Your task to perform on an android device: Search for seafood restaurants on Google Maps Image 0: 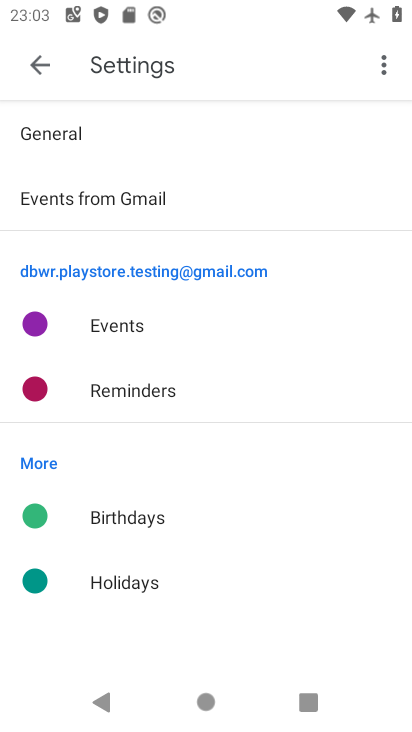
Step 0: press home button
Your task to perform on an android device: Search for seafood restaurants on Google Maps Image 1: 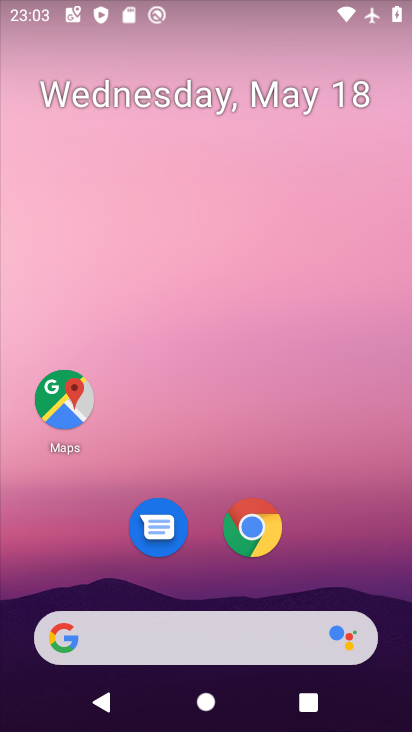
Step 1: click (69, 402)
Your task to perform on an android device: Search for seafood restaurants on Google Maps Image 2: 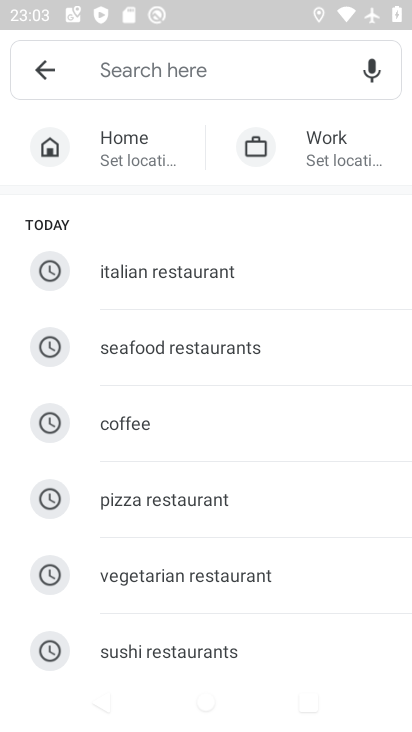
Step 2: click (247, 365)
Your task to perform on an android device: Search for seafood restaurants on Google Maps Image 3: 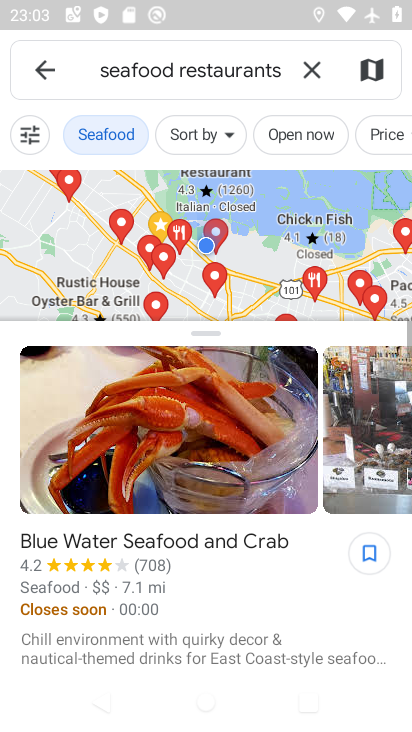
Step 3: task complete